Your task to perform on an android device: What's the weather today? Image 0: 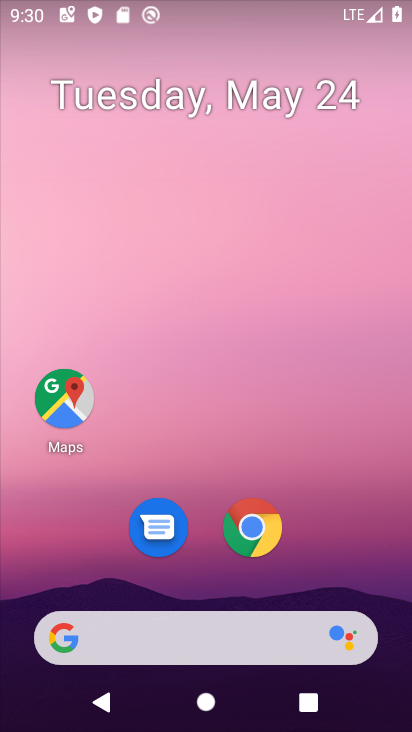
Step 0: click (191, 643)
Your task to perform on an android device: What's the weather today? Image 1: 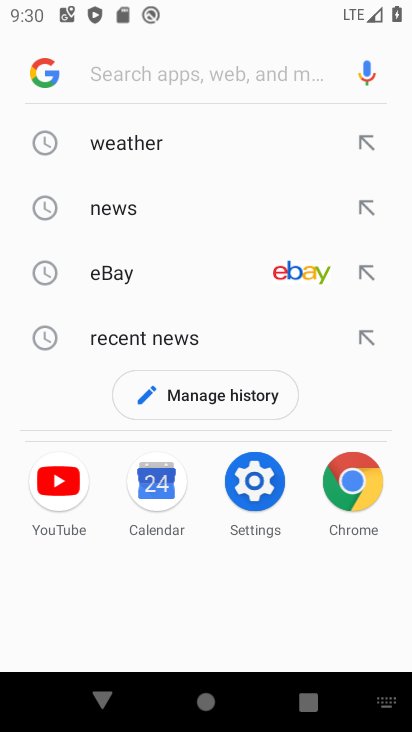
Step 1: type "What's the weather today?"
Your task to perform on an android device: What's the weather today? Image 2: 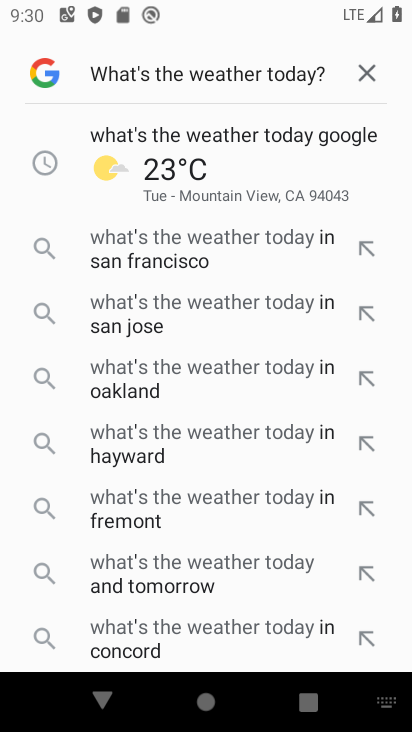
Step 2: click (272, 178)
Your task to perform on an android device: What's the weather today? Image 3: 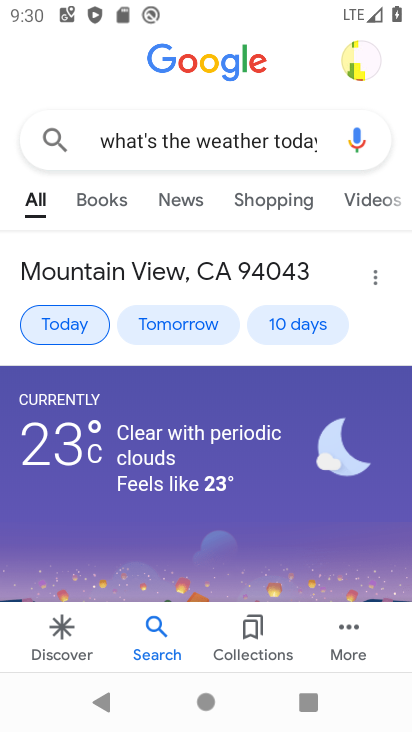
Step 3: task complete